Your task to perform on an android device: Go to accessibility settings Image 0: 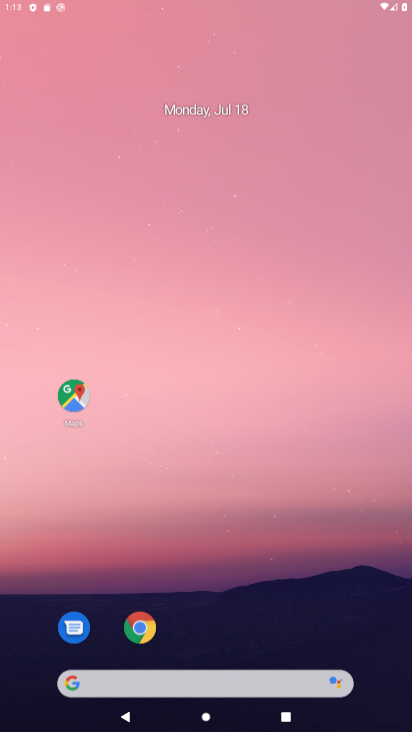
Step 0: press home button
Your task to perform on an android device: Go to accessibility settings Image 1: 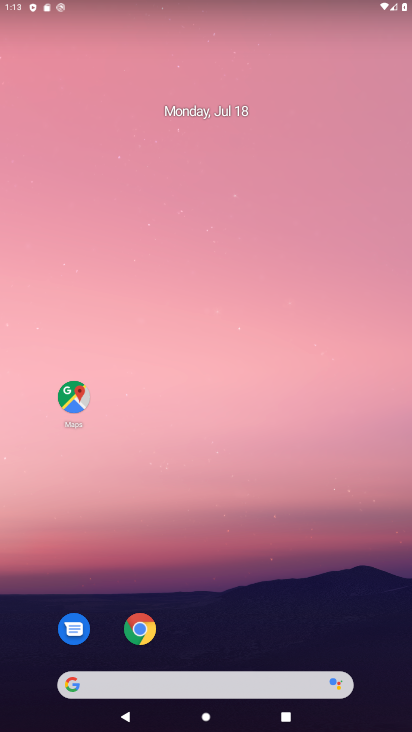
Step 1: drag from (253, 626) to (198, 149)
Your task to perform on an android device: Go to accessibility settings Image 2: 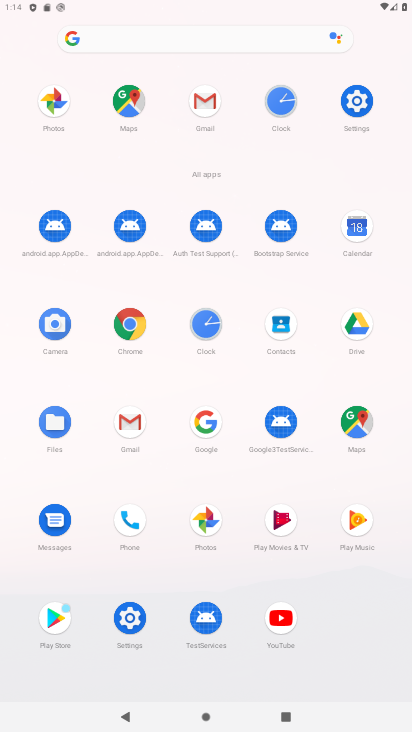
Step 2: click (124, 616)
Your task to perform on an android device: Go to accessibility settings Image 3: 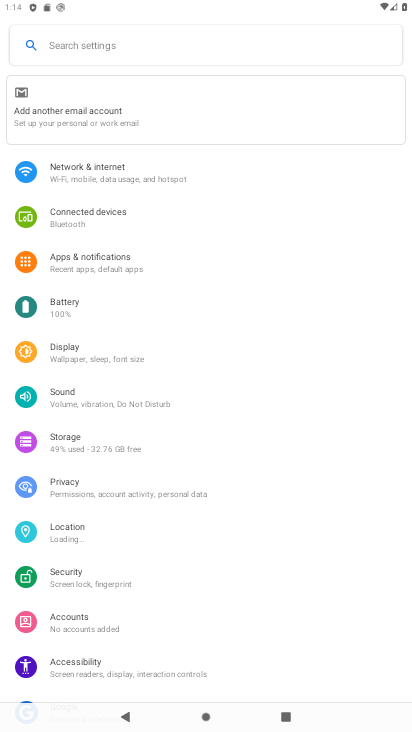
Step 3: click (68, 659)
Your task to perform on an android device: Go to accessibility settings Image 4: 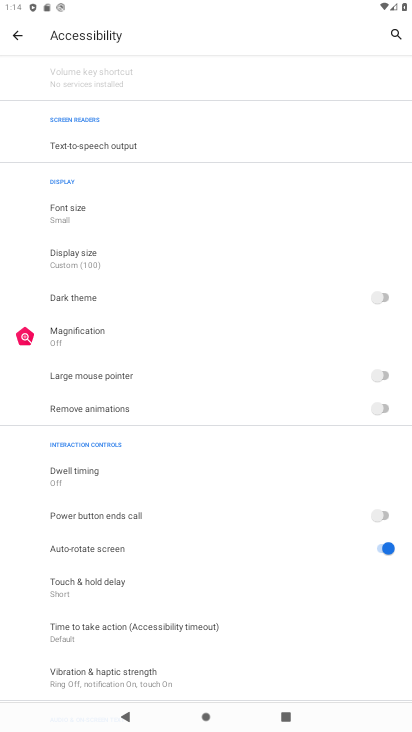
Step 4: task complete